Your task to perform on an android device: install app "Facebook Lite" Image 0: 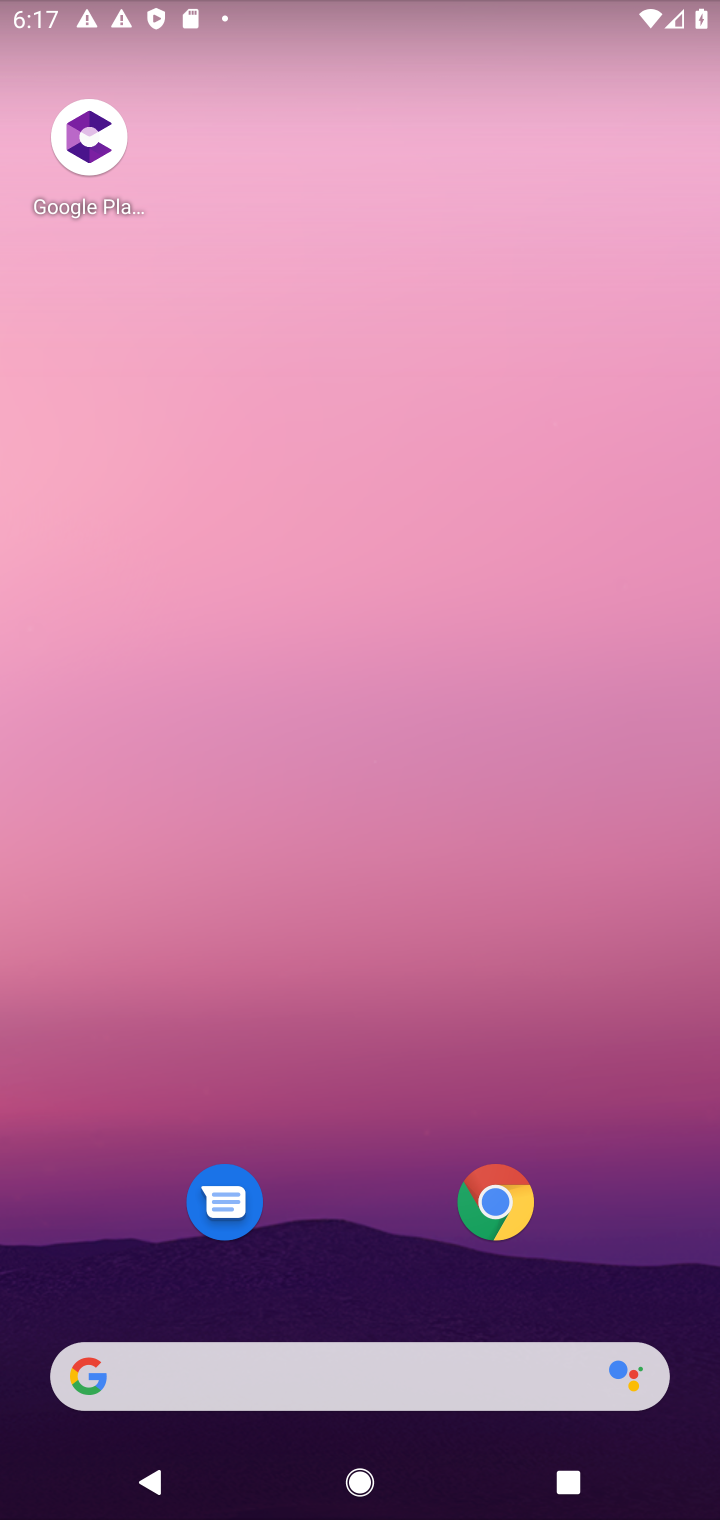
Step 0: drag from (319, 1356) to (421, 196)
Your task to perform on an android device: install app "Facebook Lite" Image 1: 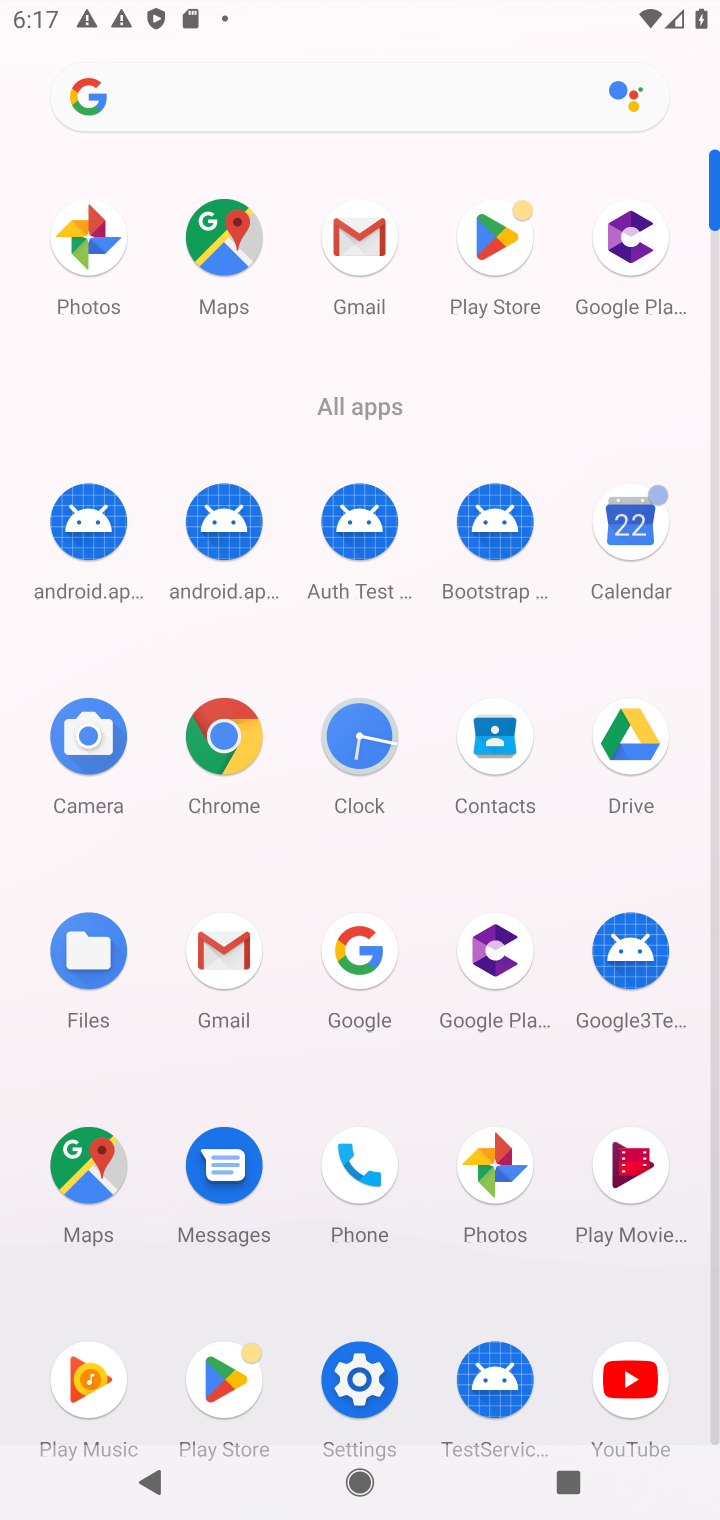
Step 1: click (507, 227)
Your task to perform on an android device: install app "Facebook Lite" Image 2: 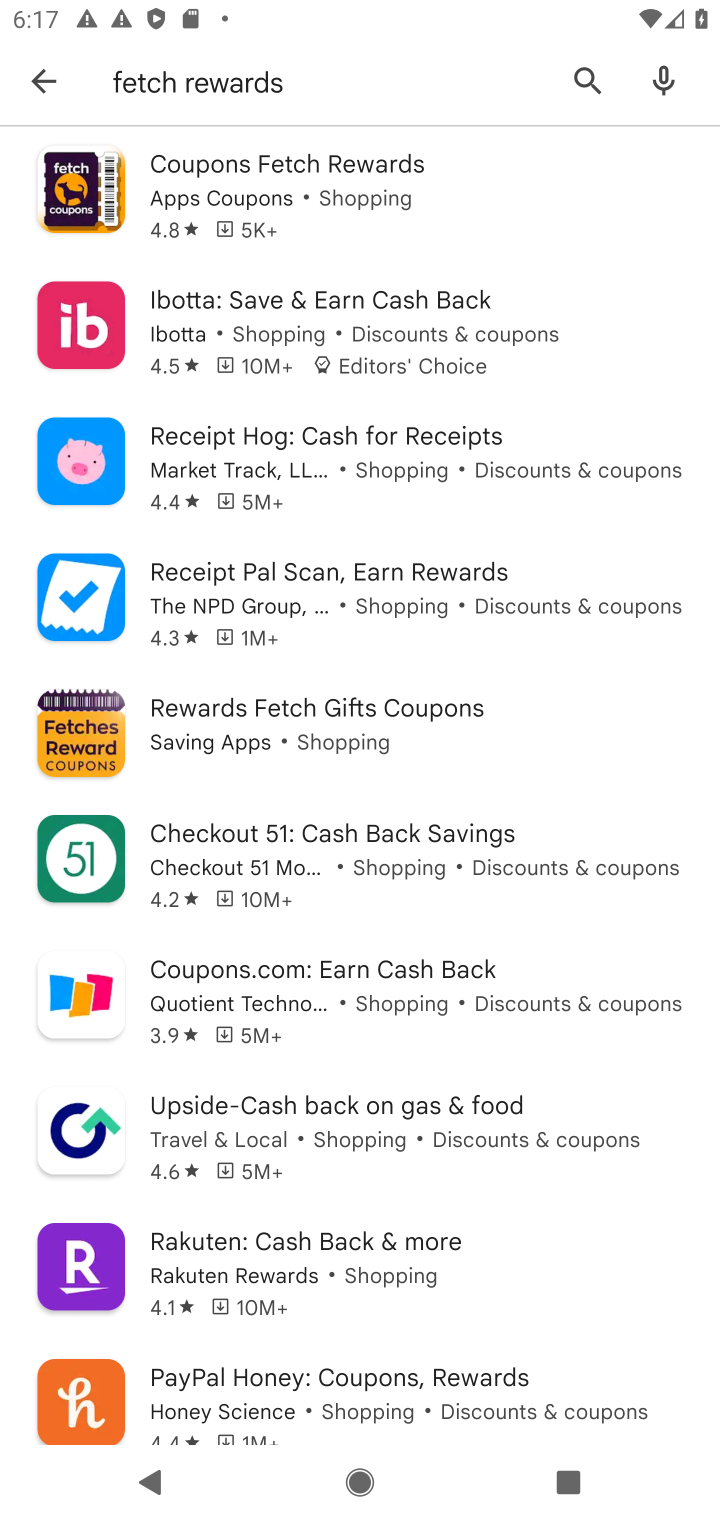
Step 2: click (575, 87)
Your task to perform on an android device: install app "Facebook Lite" Image 3: 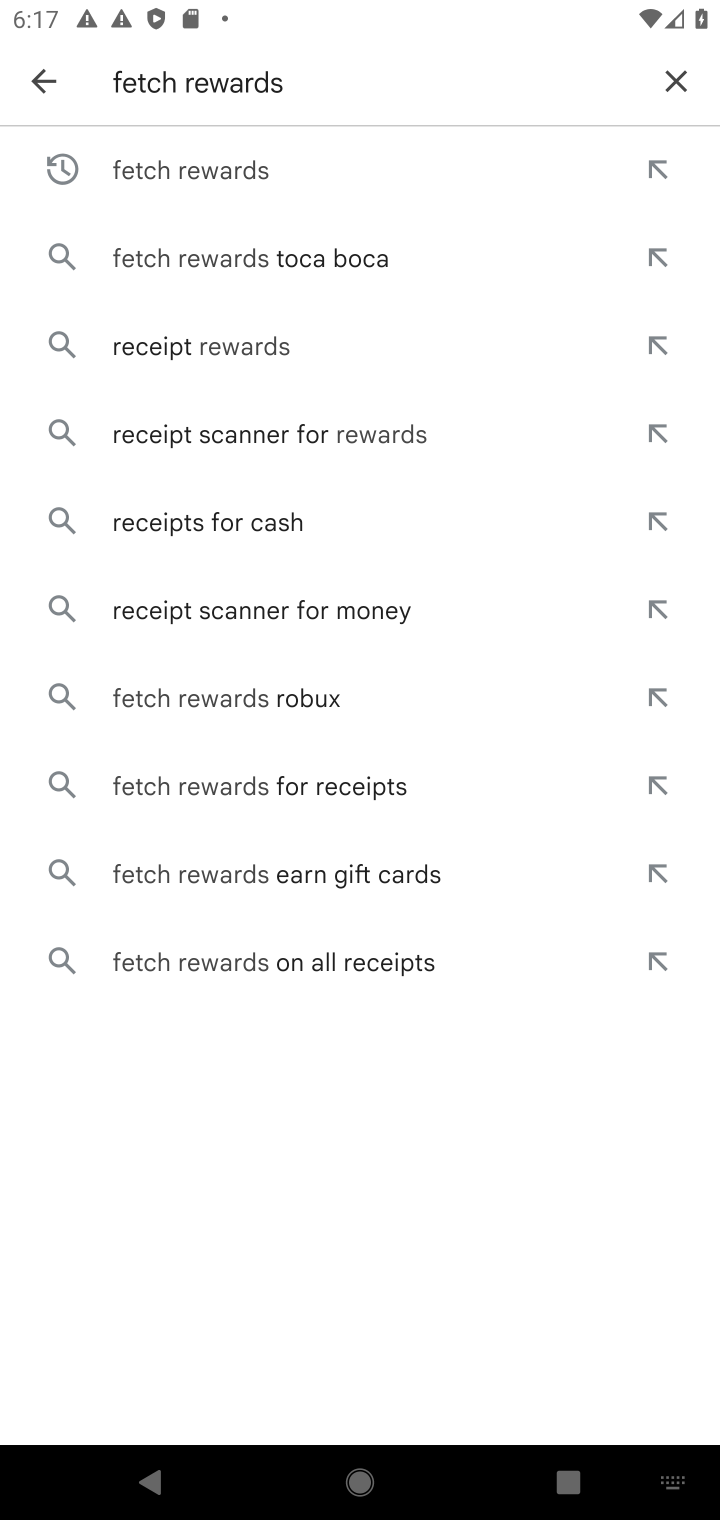
Step 3: click (660, 80)
Your task to perform on an android device: install app "Facebook Lite" Image 4: 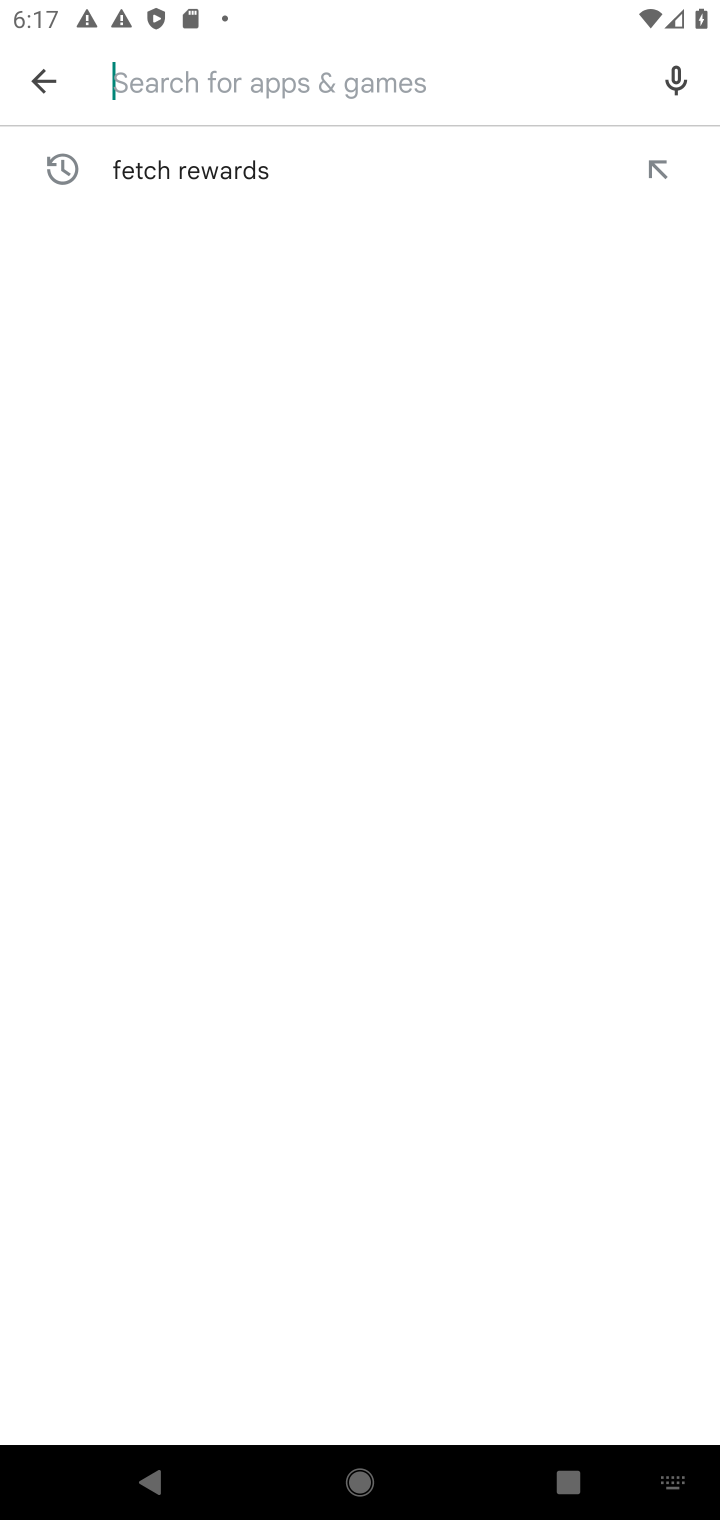
Step 4: type "Facebook Lite"
Your task to perform on an android device: install app "Facebook Lite" Image 5: 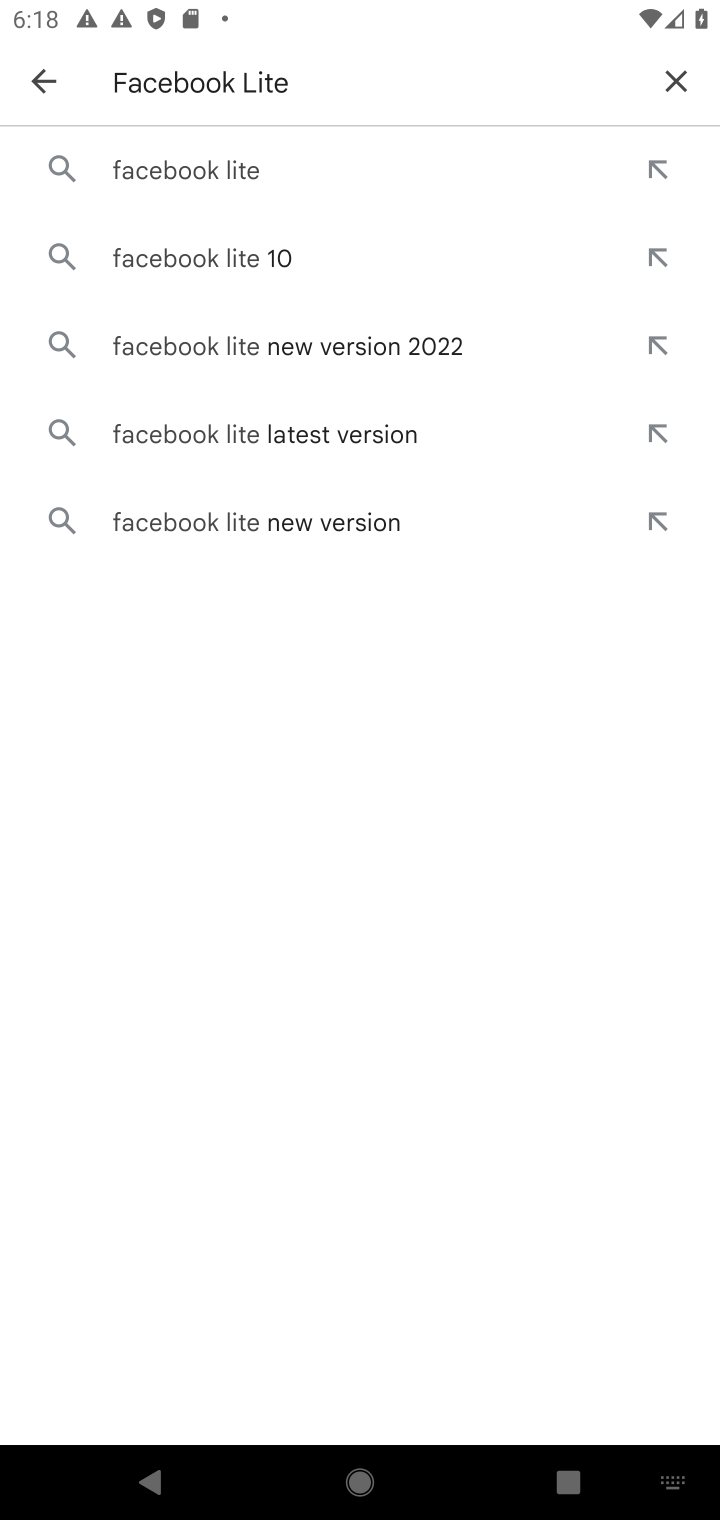
Step 5: click (178, 155)
Your task to perform on an android device: install app "Facebook Lite" Image 6: 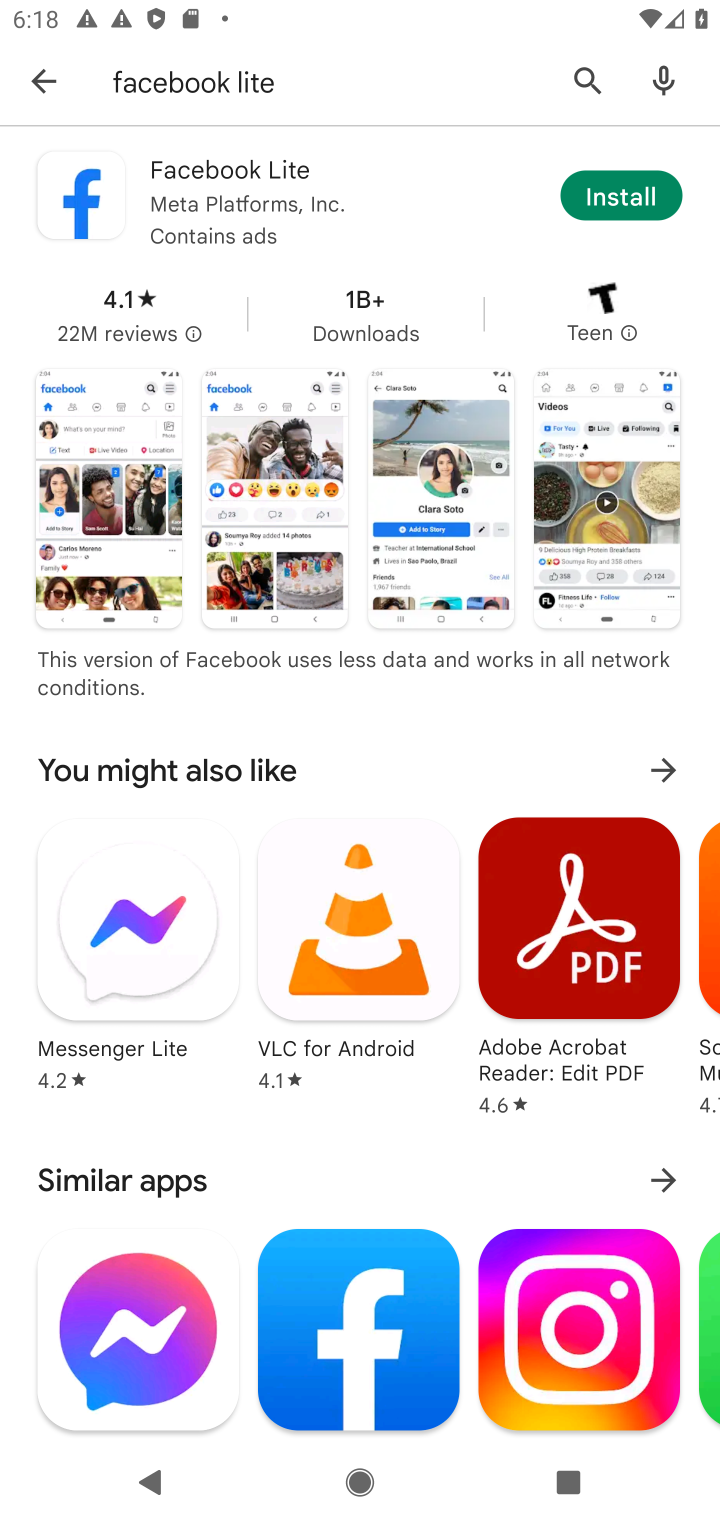
Step 6: click (638, 195)
Your task to perform on an android device: install app "Facebook Lite" Image 7: 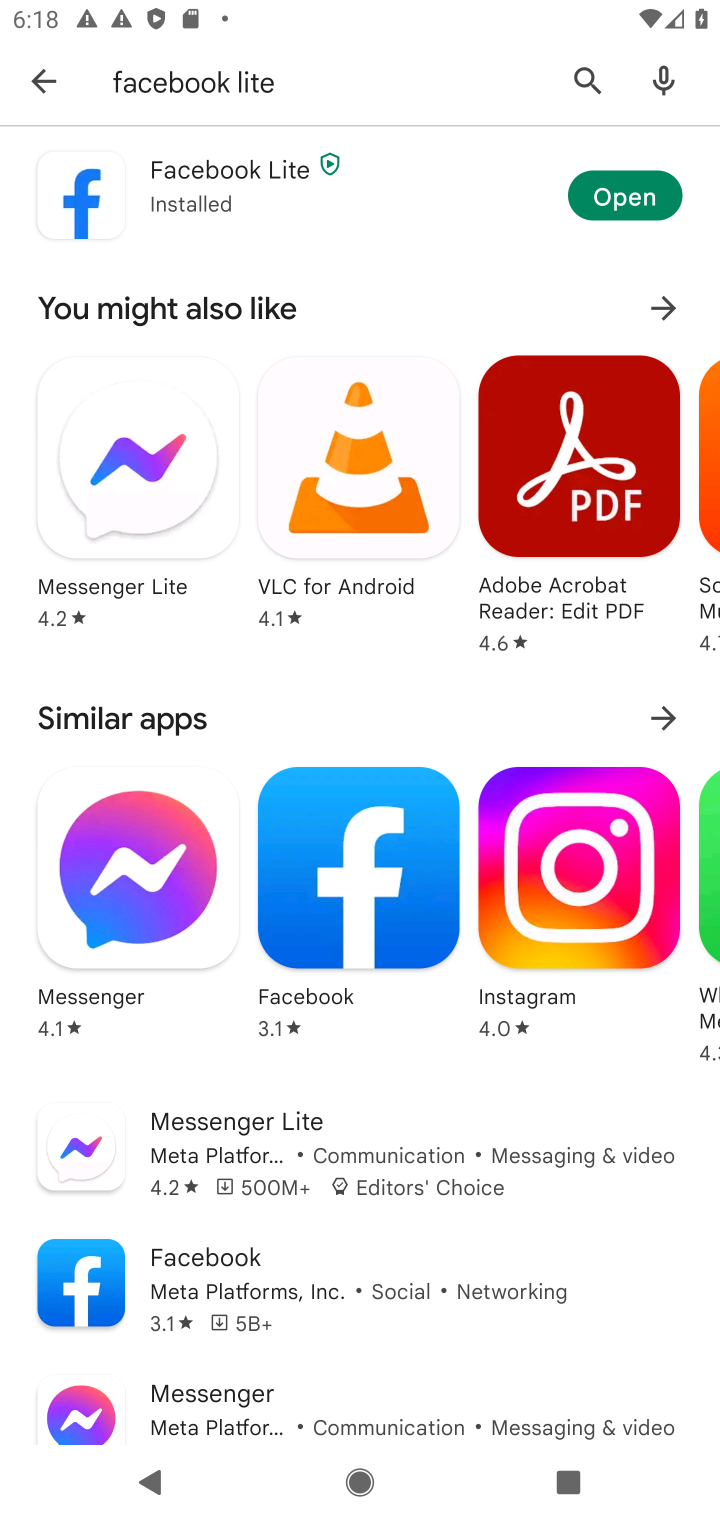
Step 7: click (639, 201)
Your task to perform on an android device: install app "Facebook Lite" Image 8: 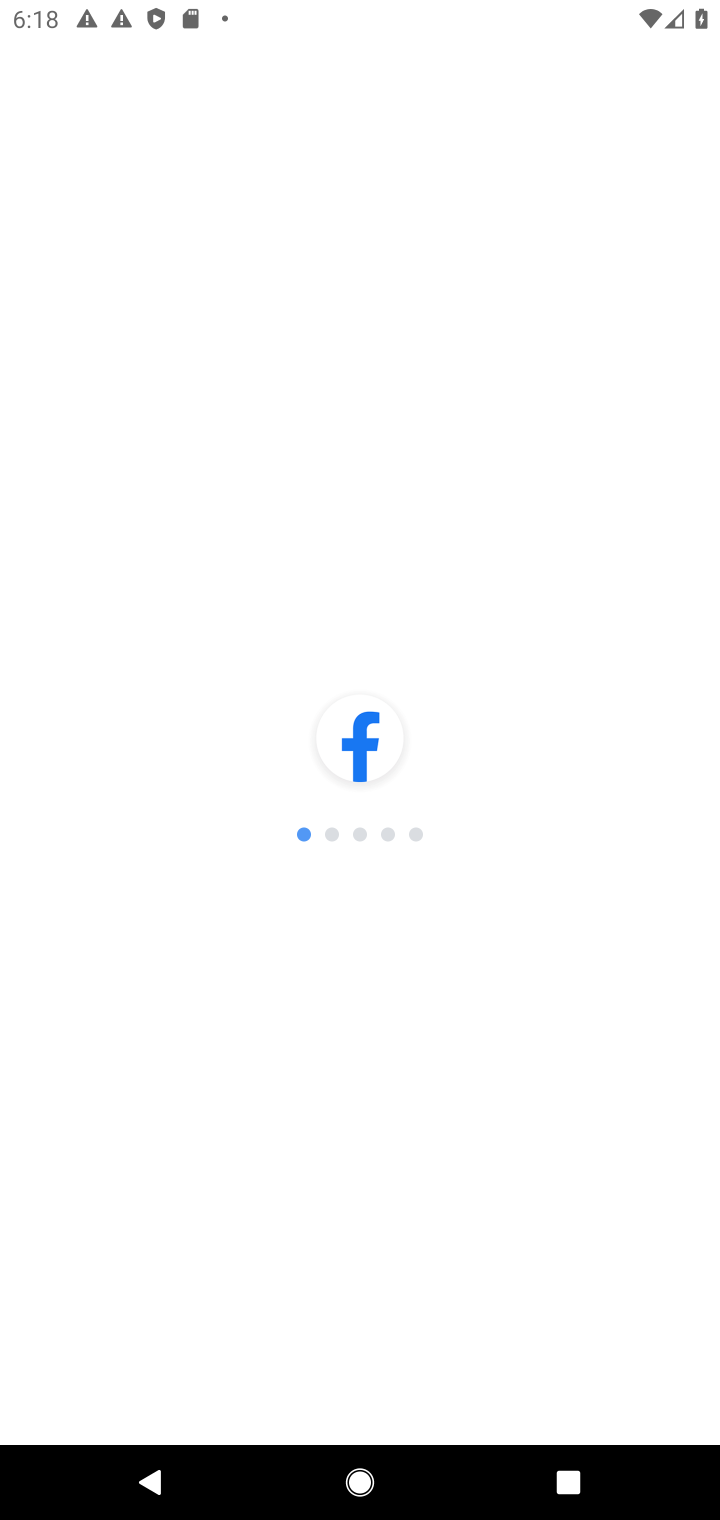
Step 8: task complete